Your task to perform on an android device: Open ESPN.com Image 0: 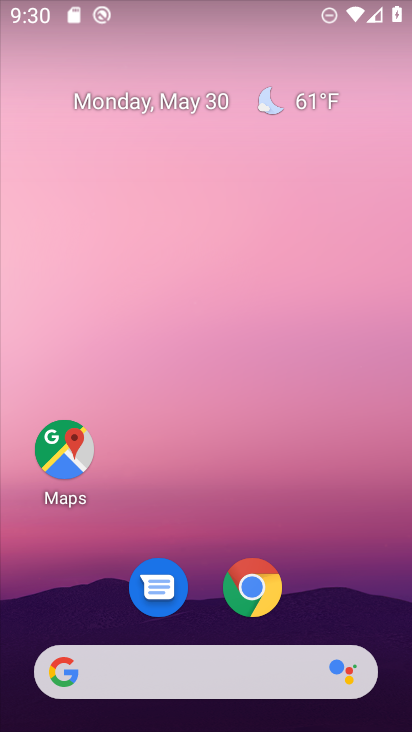
Step 0: drag from (232, 639) to (163, 4)
Your task to perform on an android device: Open ESPN.com Image 1: 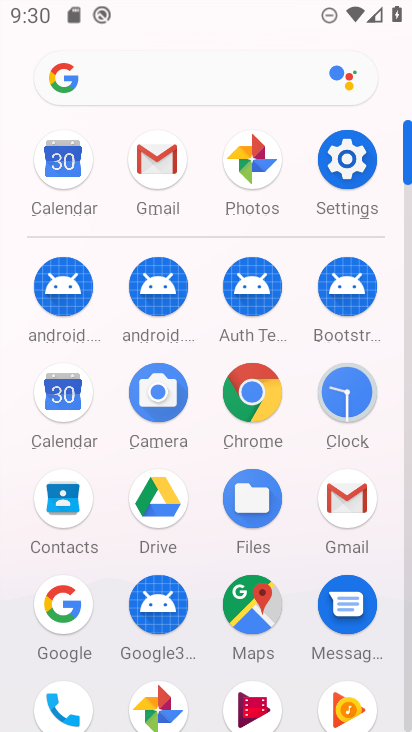
Step 1: click (261, 412)
Your task to perform on an android device: Open ESPN.com Image 2: 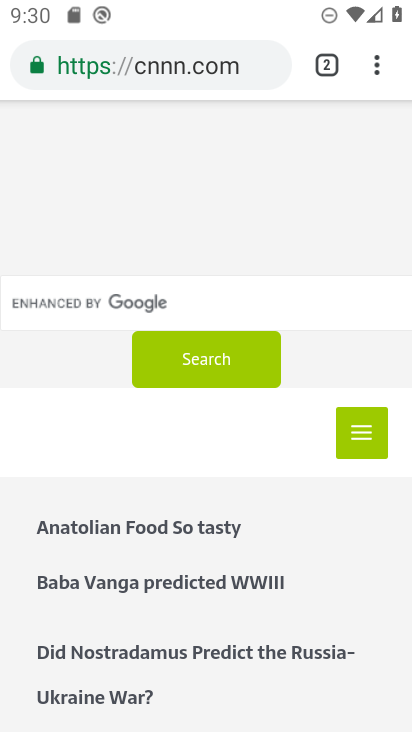
Step 2: click (323, 71)
Your task to perform on an android device: Open ESPN.com Image 3: 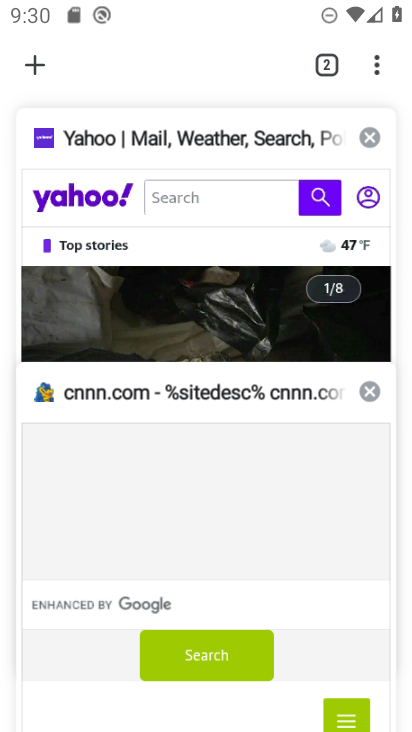
Step 3: click (37, 59)
Your task to perform on an android device: Open ESPN.com Image 4: 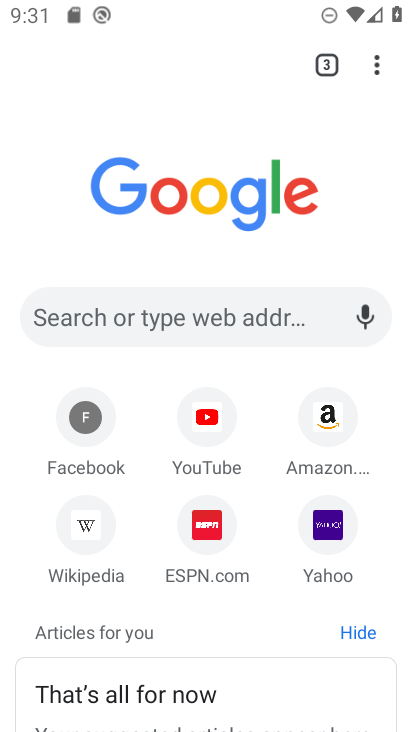
Step 4: click (202, 533)
Your task to perform on an android device: Open ESPN.com Image 5: 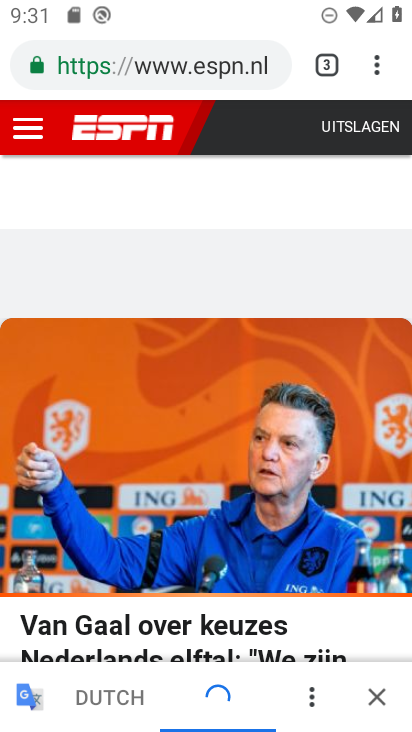
Step 5: task complete